Your task to perform on an android device: turn notification dots on Image 0: 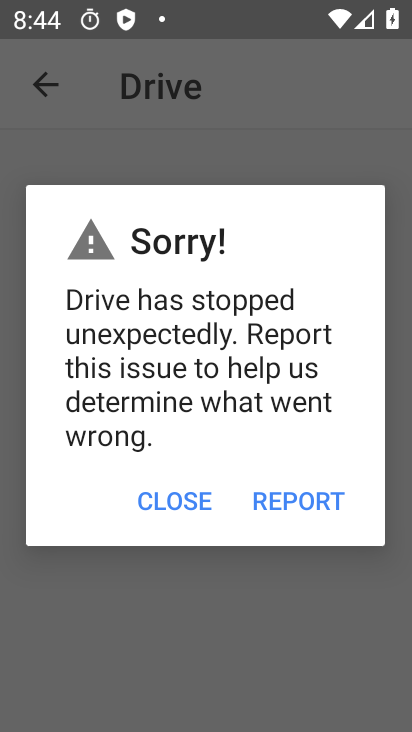
Step 0: drag from (302, 563) to (289, 596)
Your task to perform on an android device: turn notification dots on Image 1: 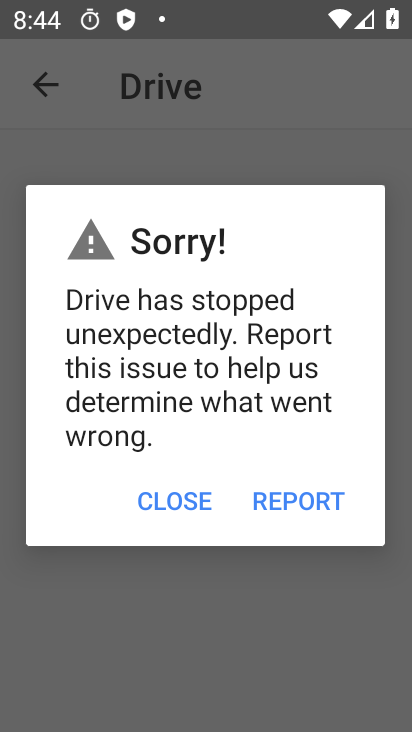
Step 1: press home button
Your task to perform on an android device: turn notification dots on Image 2: 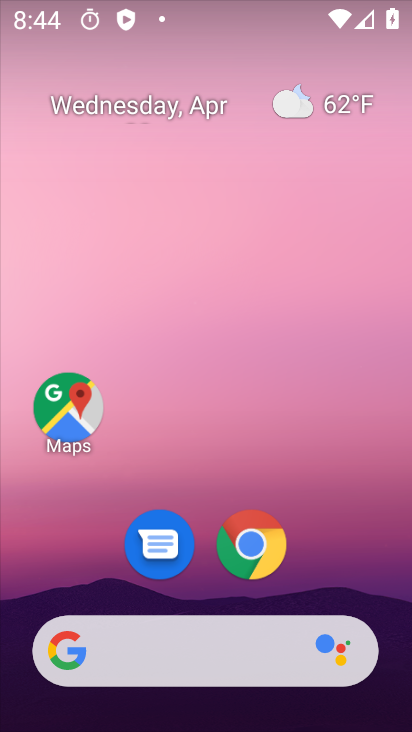
Step 2: drag from (339, 522) to (145, 214)
Your task to perform on an android device: turn notification dots on Image 3: 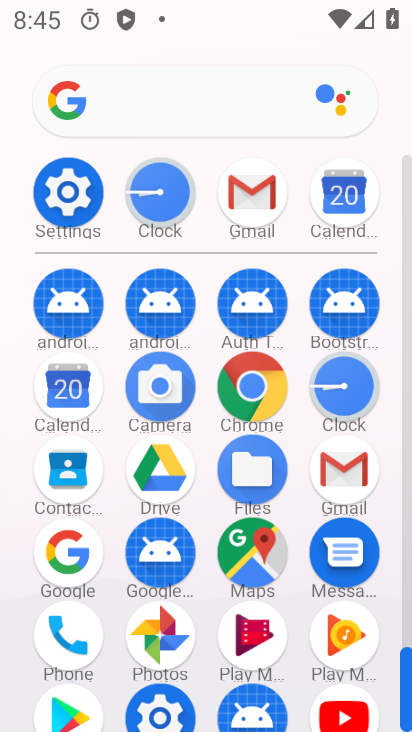
Step 3: click (61, 187)
Your task to perform on an android device: turn notification dots on Image 4: 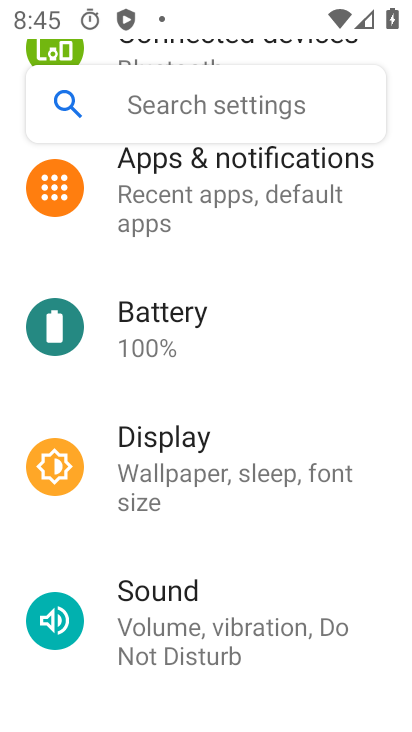
Step 4: click (165, 201)
Your task to perform on an android device: turn notification dots on Image 5: 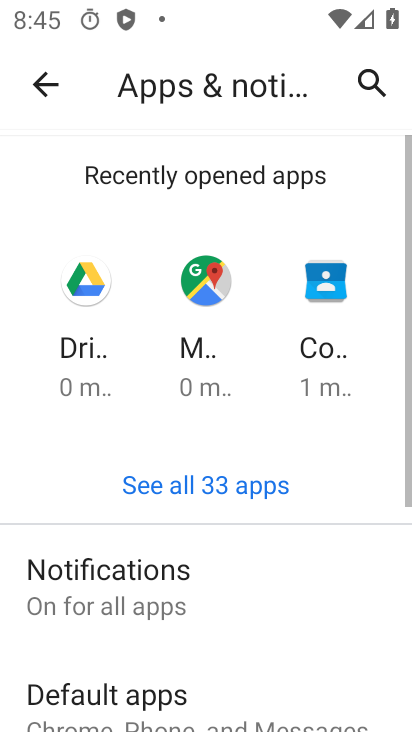
Step 5: click (121, 595)
Your task to perform on an android device: turn notification dots on Image 6: 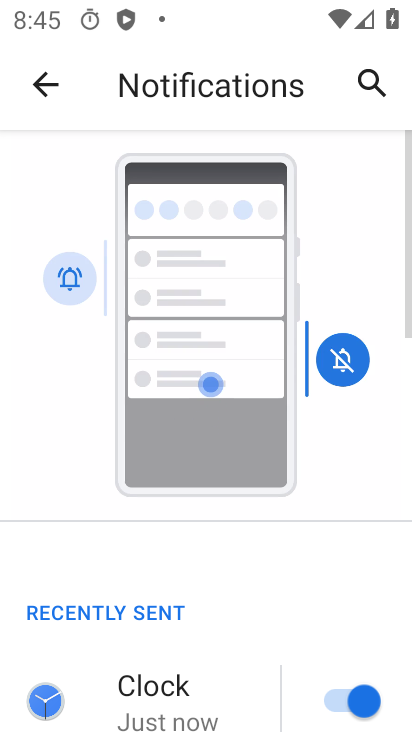
Step 6: drag from (167, 612) to (161, 193)
Your task to perform on an android device: turn notification dots on Image 7: 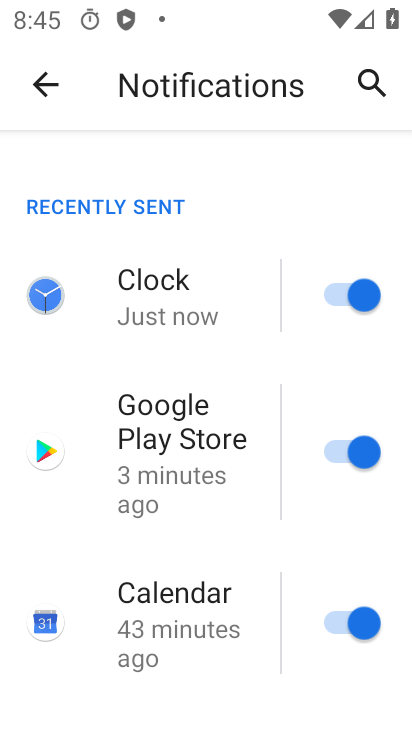
Step 7: drag from (166, 677) to (196, 273)
Your task to perform on an android device: turn notification dots on Image 8: 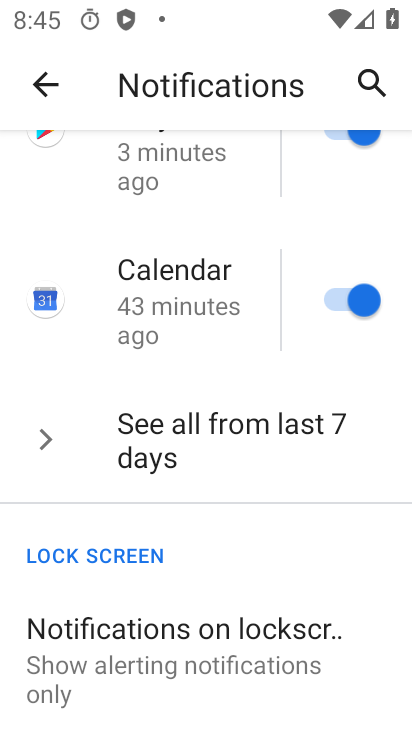
Step 8: drag from (176, 646) to (112, 314)
Your task to perform on an android device: turn notification dots on Image 9: 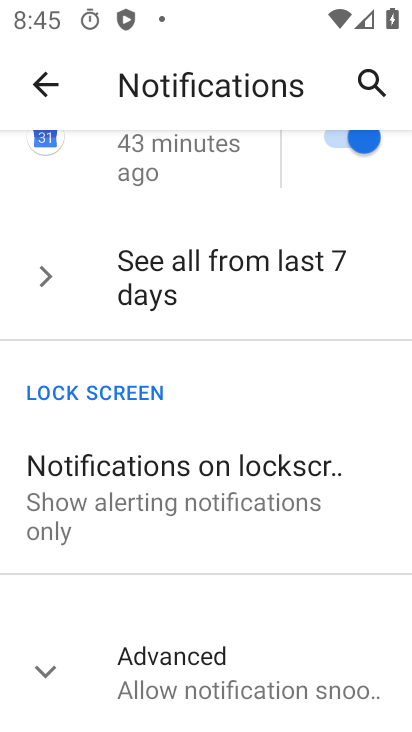
Step 9: click (157, 672)
Your task to perform on an android device: turn notification dots on Image 10: 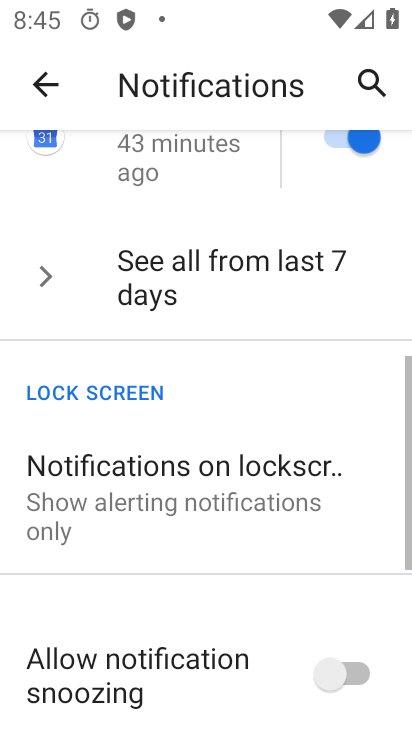
Step 10: drag from (104, 692) to (95, 332)
Your task to perform on an android device: turn notification dots on Image 11: 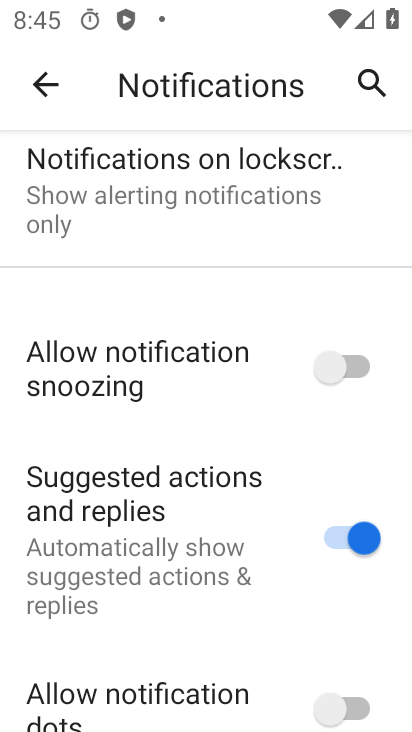
Step 11: drag from (150, 683) to (135, 422)
Your task to perform on an android device: turn notification dots on Image 12: 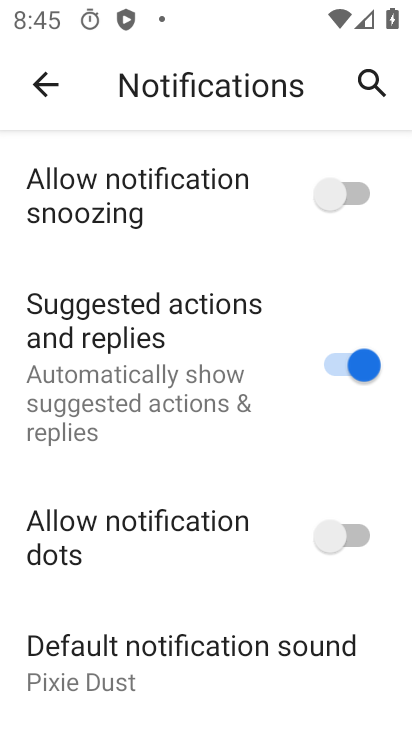
Step 12: click (356, 533)
Your task to perform on an android device: turn notification dots on Image 13: 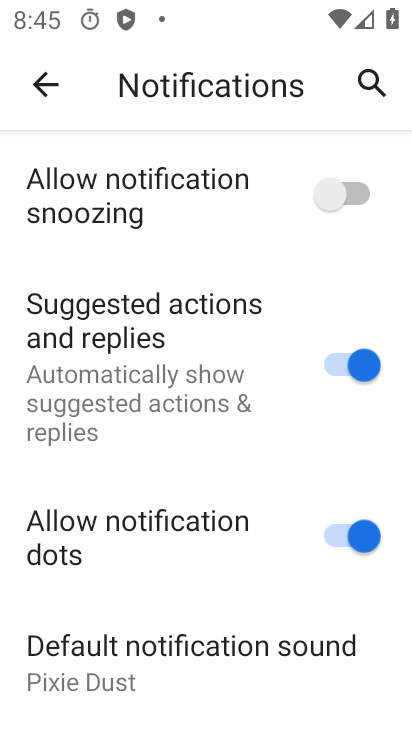
Step 13: task complete